Your task to perform on an android device: What is the news today? Image 0: 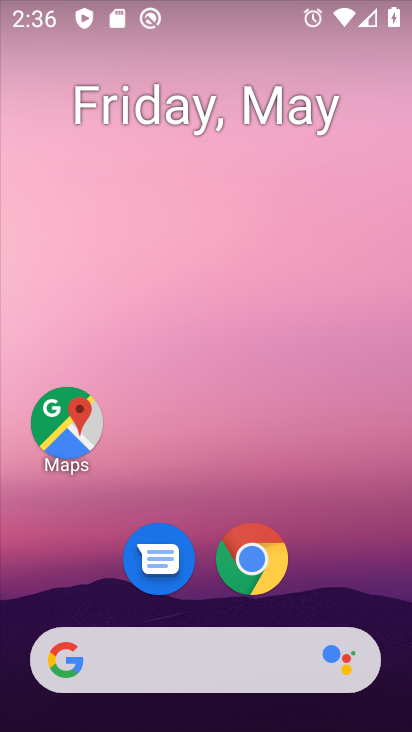
Step 0: drag from (363, 586) to (270, 90)
Your task to perform on an android device: What is the news today? Image 1: 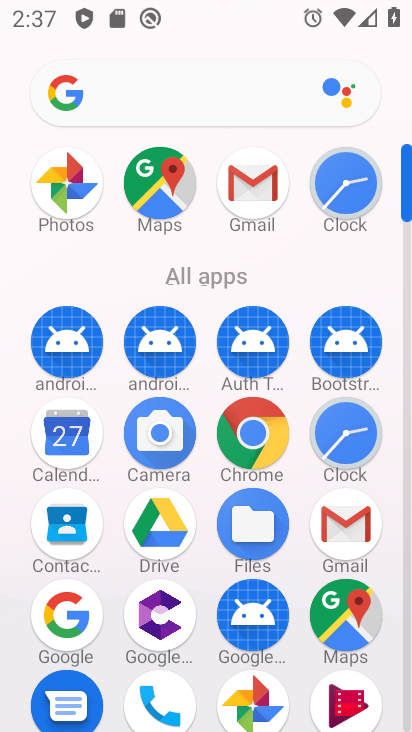
Step 1: click (407, 709)
Your task to perform on an android device: What is the news today? Image 2: 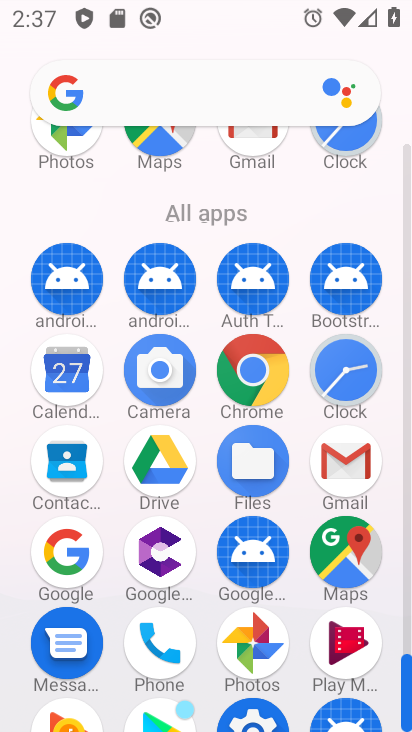
Step 2: click (151, 84)
Your task to perform on an android device: What is the news today? Image 3: 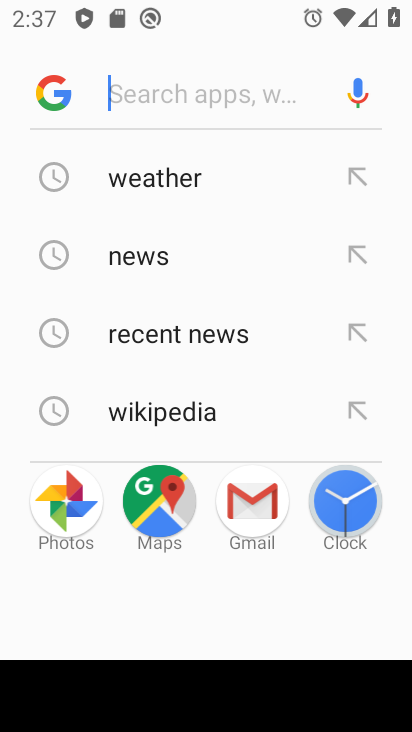
Step 3: click (172, 235)
Your task to perform on an android device: What is the news today? Image 4: 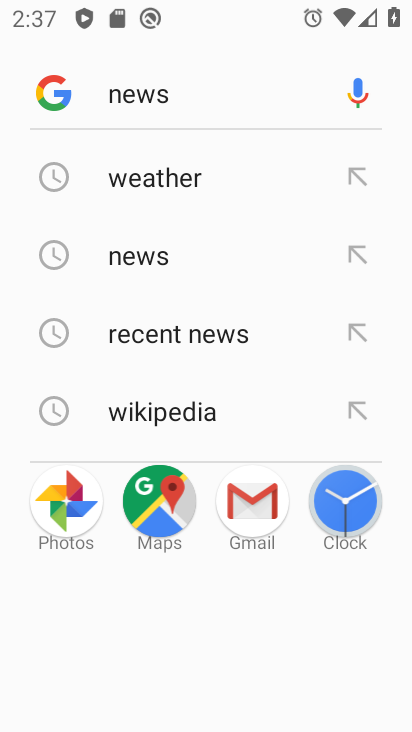
Step 4: task complete